Your task to perform on an android device: Go to network settings Image 0: 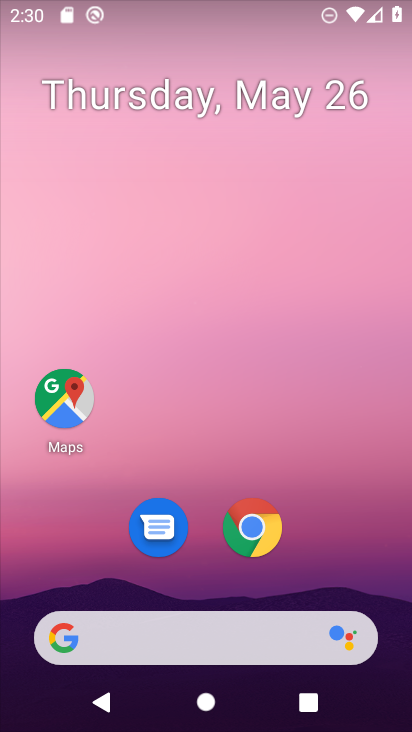
Step 0: drag from (214, 554) to (245, 118)
Your task to perform on an android device: Go to network settings Image 1: 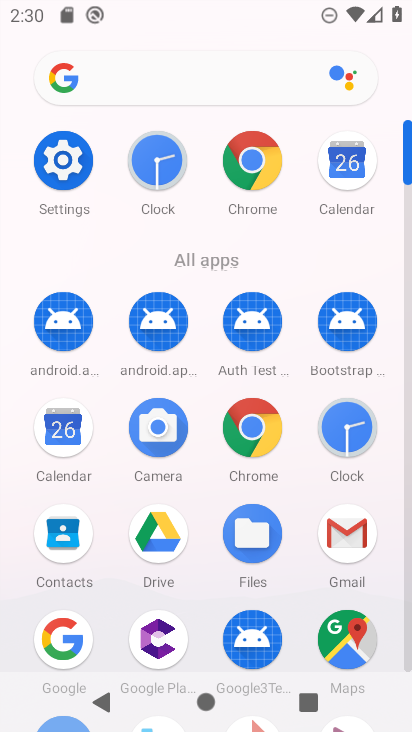
Step 1: click (62, 162)
Your task to perform on an android device: Go to network settings Image 2: 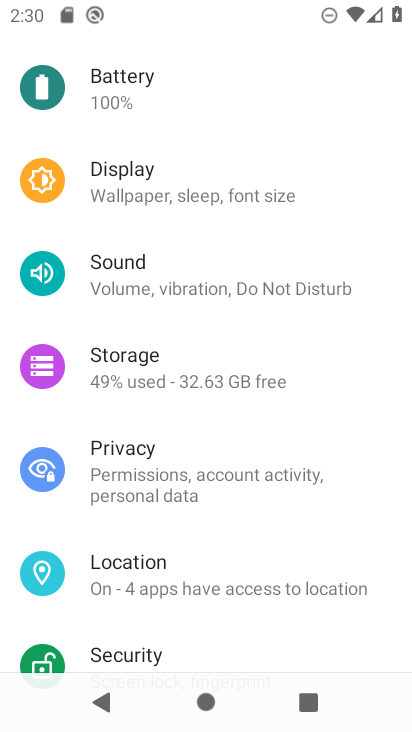
Step 2: drag from (298, 205) to (279, 646)
Your task to perform on an android device: Go to network settings Image 3: 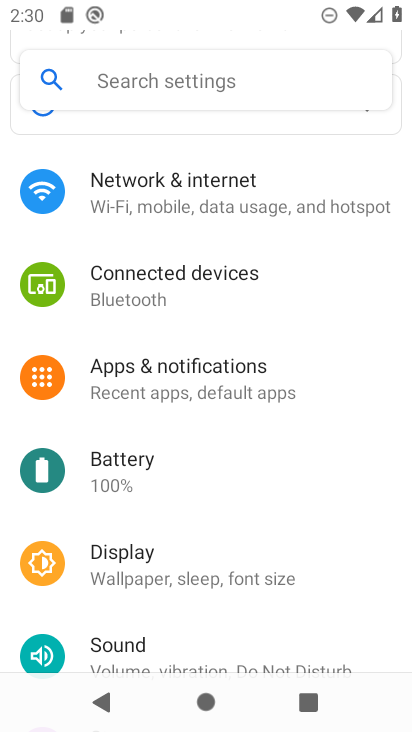
Step 3: click (180, 197)
Your task to perform on an android device: Go to network settings Image 4: 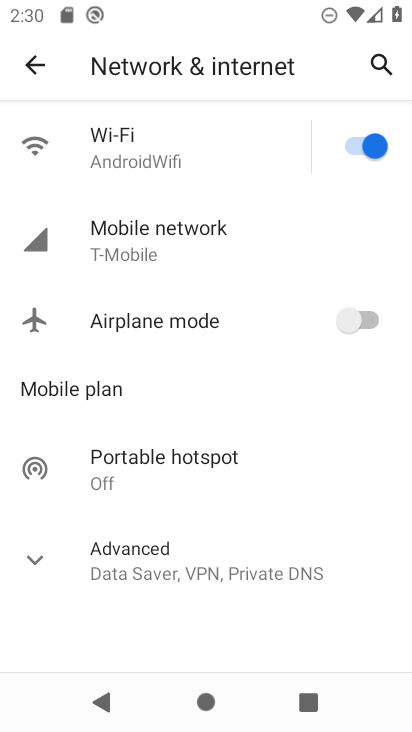
Step 4: task complete